Your task to perform on an android device: Go to Google Image 0: 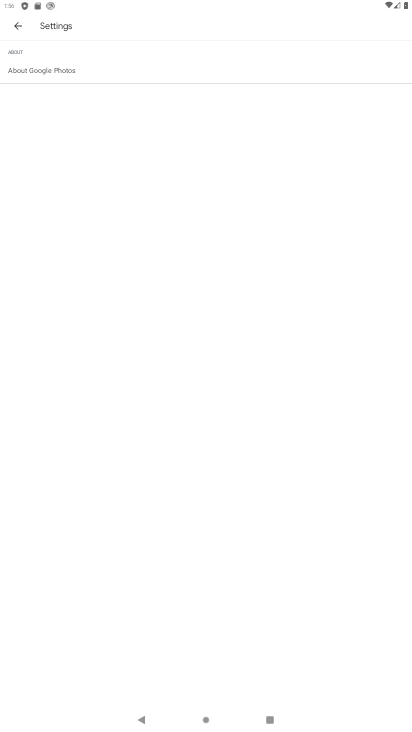
Step 0: press home button
Your task to perform on an android device: Go to Google Image 1: 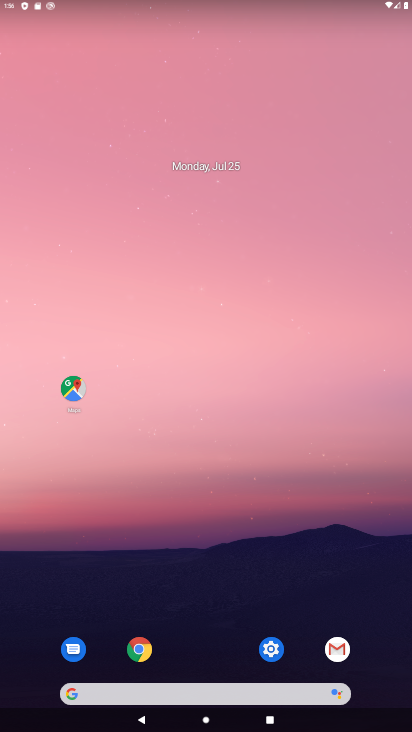
Step 1: click (155, 692)
Your task to perform on an android device: Go to Google Image 2: 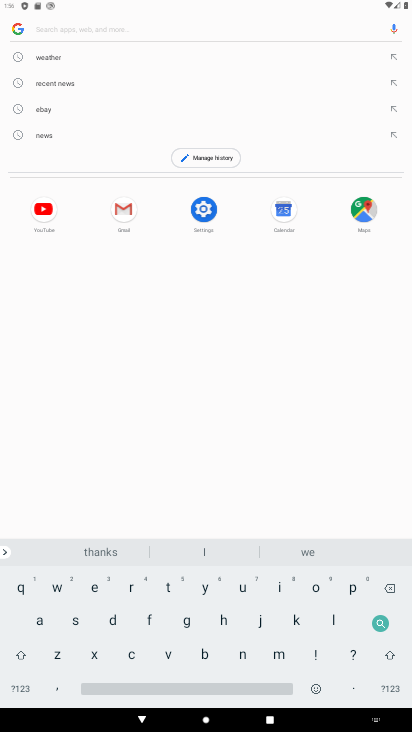
Step 2: click (22, 19)
Your task to perform on an android device: Go to Google Image 3: 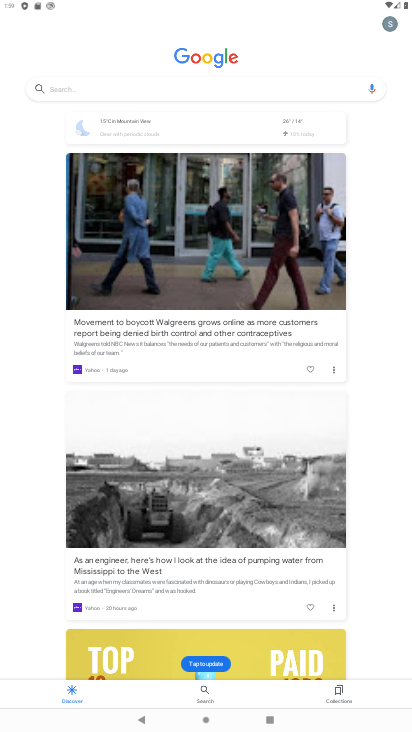
Step 3: task complete